Your task to perform on an android device: Do I have any events today? Image 0: 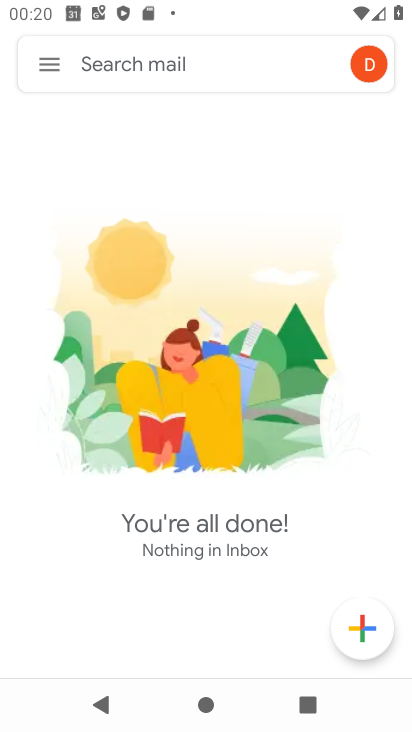
Step 0: press home button
Your task to perform on an android device: Do I have any events today? Image 1: 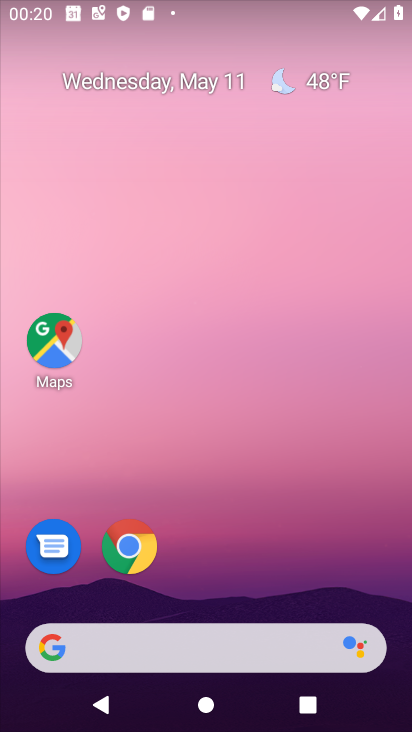
Step 1: drag from (215, 582) to (219, 162)
Your task to perform on an android device: Do I have any events today? Image 2: 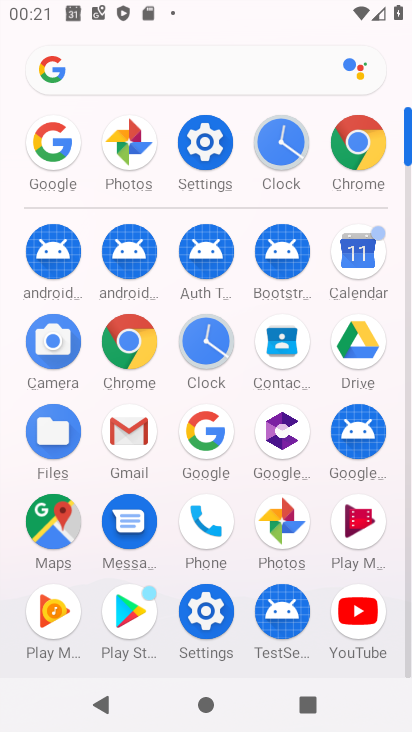
Step 2: click (351, 270)
Your task to perform on an android device: Do I have any events today? Image 3: 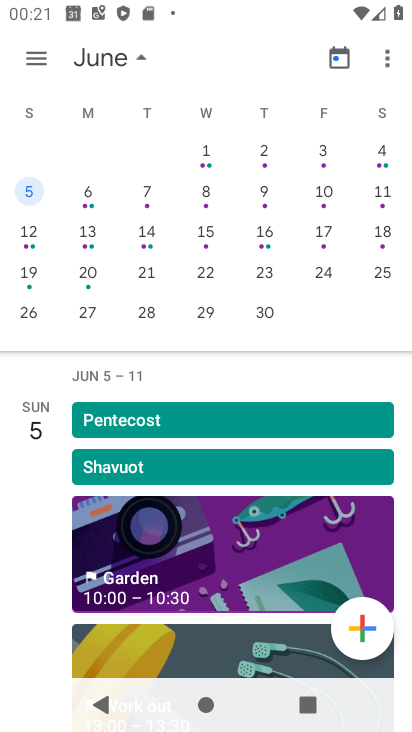
Step 3: drag from (113, 229) to (409, 229)
Your task to perform on an android device: Do I have any events today? Image 4: 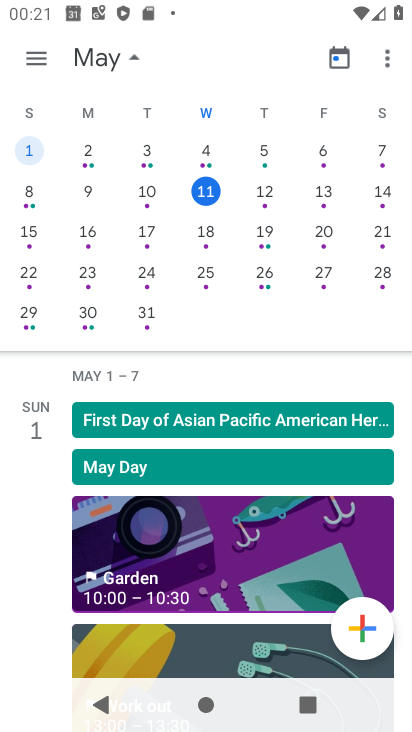
Step 4: click (221, 188)
Your task to perform on an android device: Do I have any events today? Image 5: 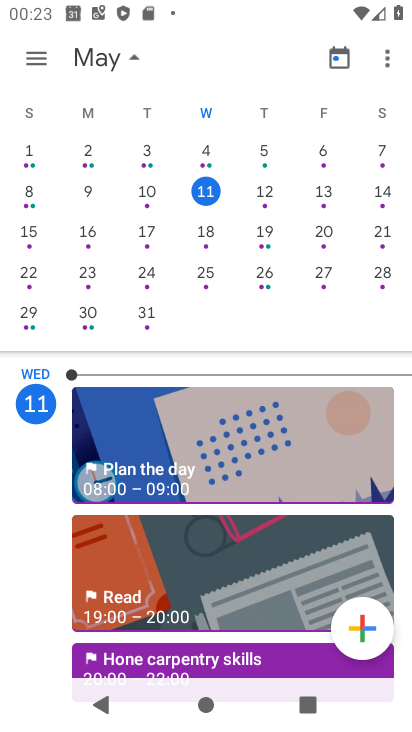
Step 5: task complete